Your task to perform on an android device: turn notification dots on Image 0: 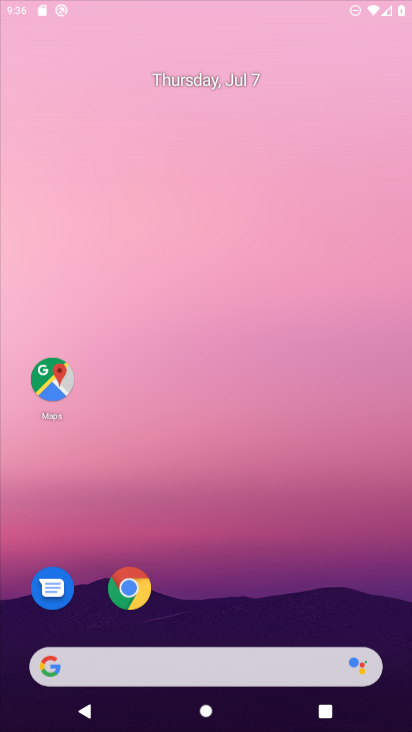
Step 0: click (272, 0)
Your task to perform on an android device: turn notification dots on Image 1: 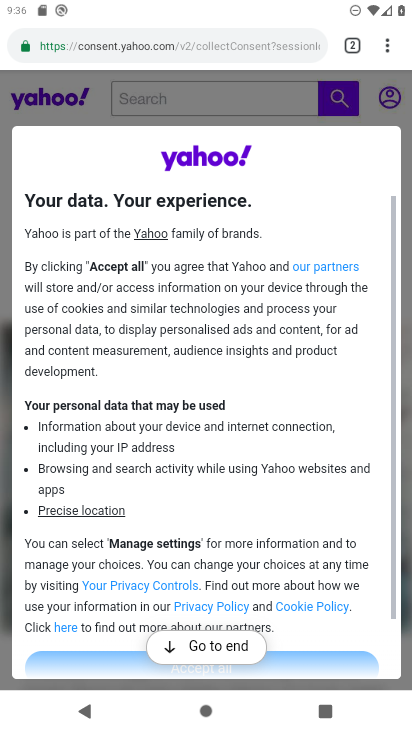
Step 1: drag from (222, 4) to (267, 523)
Your task to perform on an android device: turn notification dots on Image 2: 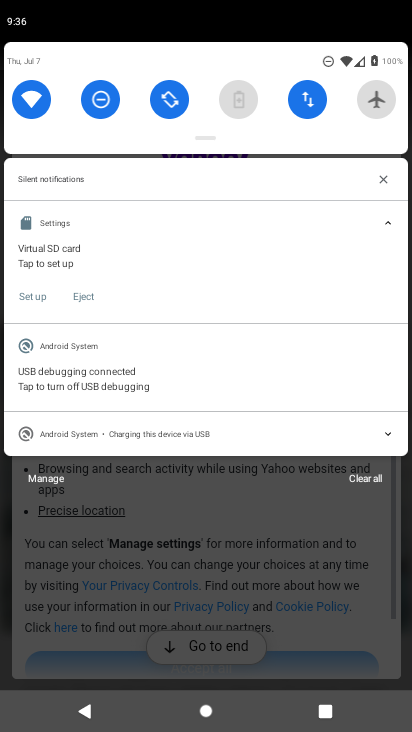
Step 2: drag from (216, 68) to (226, 613)
Your task to perform on an android device: turn notification dots on Image 3: 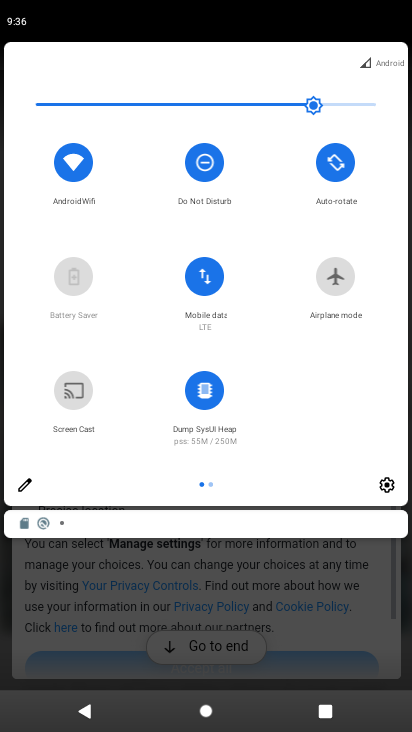
Step 3: click (390, 492)
Your task to perform on an android device: turn notification dots on Image 4: 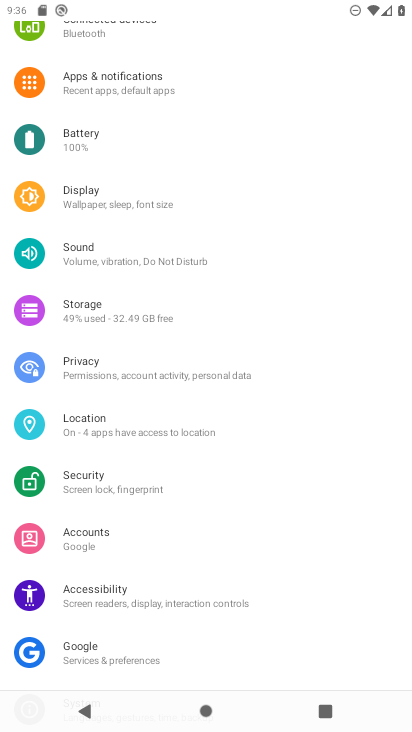
Step 4: click (211, 90)
Your task to perform on an android device: turn notification dots on Image 5: 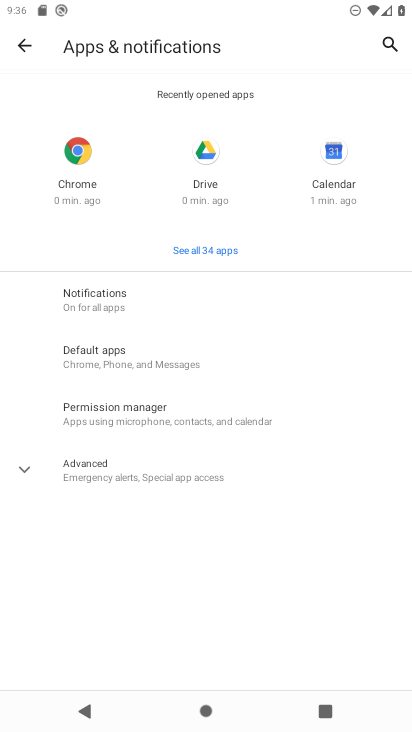
Step 5: click (120, 309)
Your task to perform on an android device: turn notification dots on Image 6: 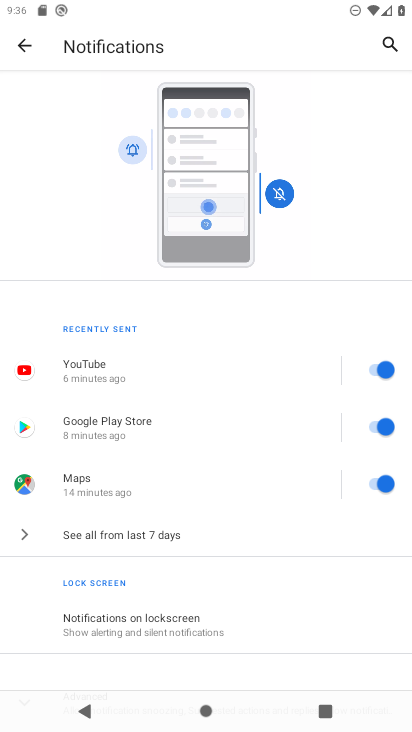
Step 6: drag from (143, 623) to (236, 90)
Your task to perform on an android device: turn notification dots on Image 7: 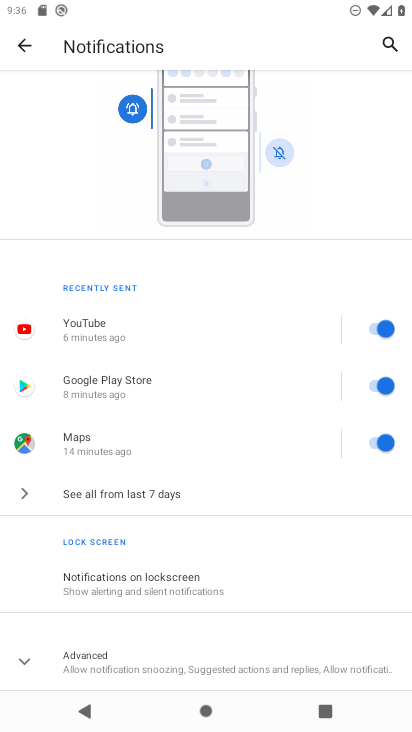
Step 7: click (147, 636)
Your task to perform on an android device: turn notification dots on Image 8: 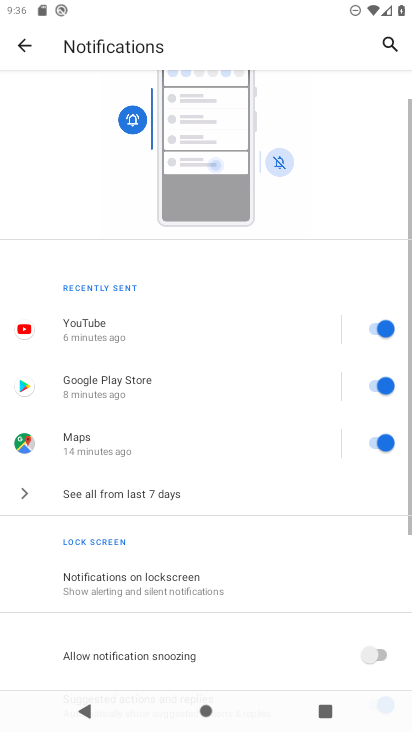
Step 8: drag from (150, 640) to (243, 214)
Your task to perform on an android device: turn notification dots on Image 9: 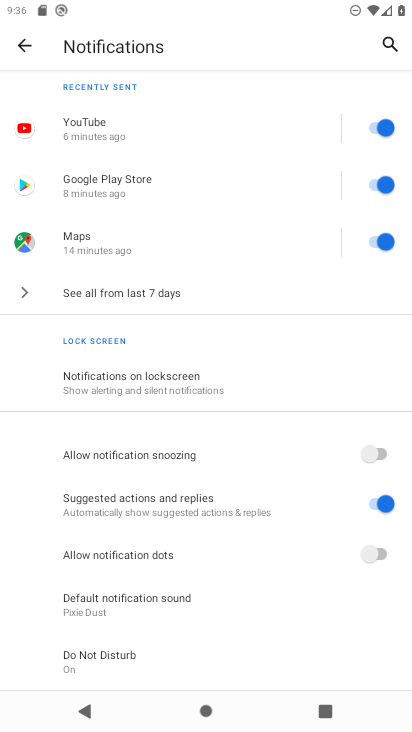
Step 9: click (376, 555)
Your task to perform on an android device: turn notification dots on Image 10: 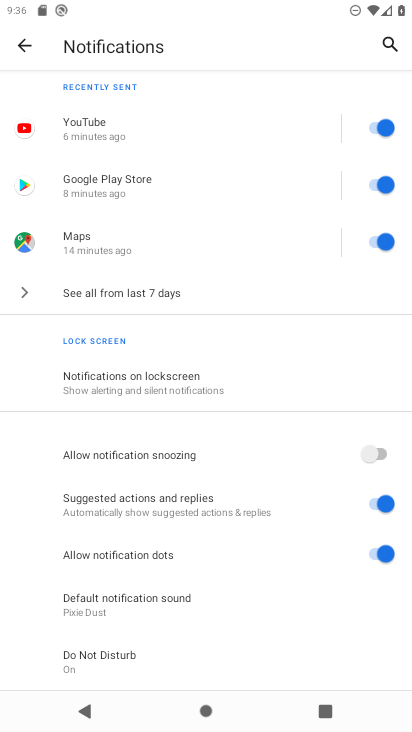
Step 10: task complete